Your task to perform on an android device: How much does a 2 bedroom apartment rent for in Los Angeles? Image 0: 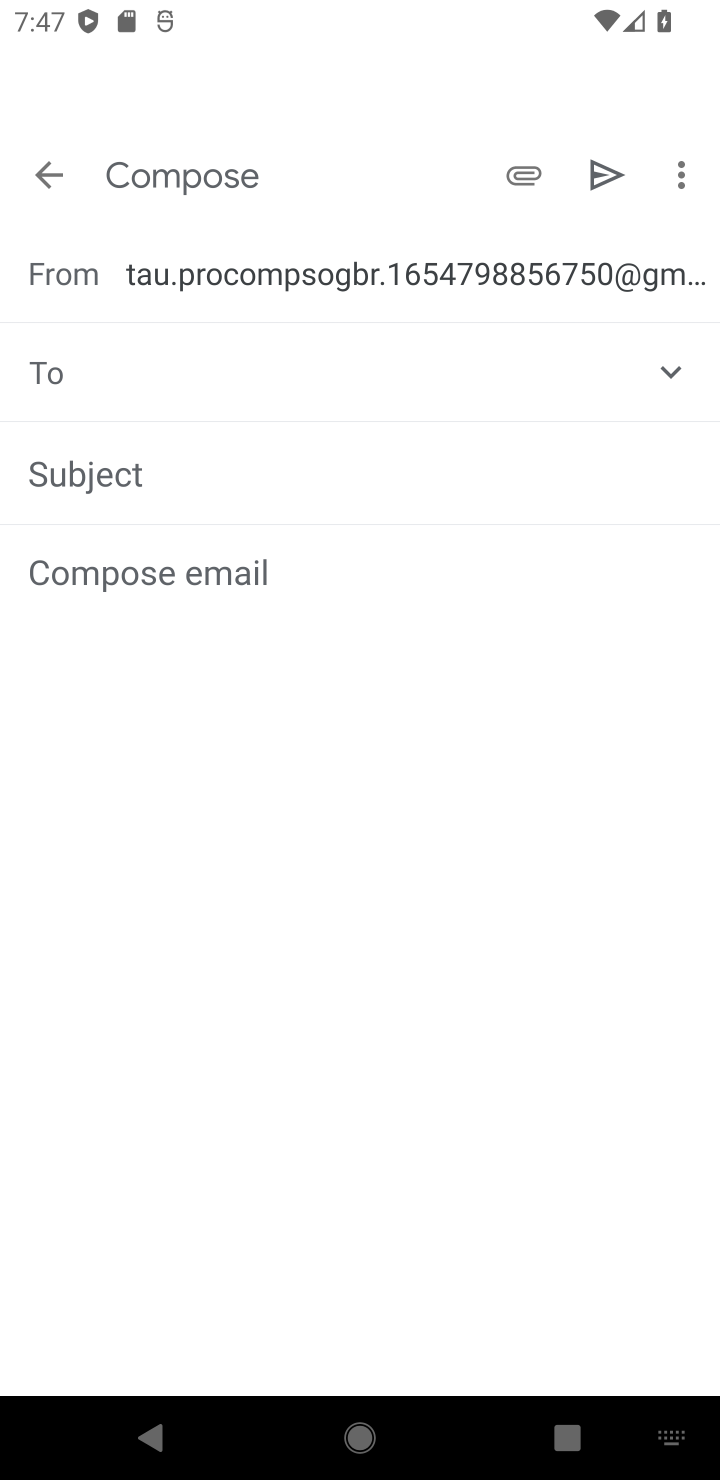
Step 0: press back button
Your task to perform on an android device: How much does a 2 bedroom apartment rent for in Los Angeles? Image 1: 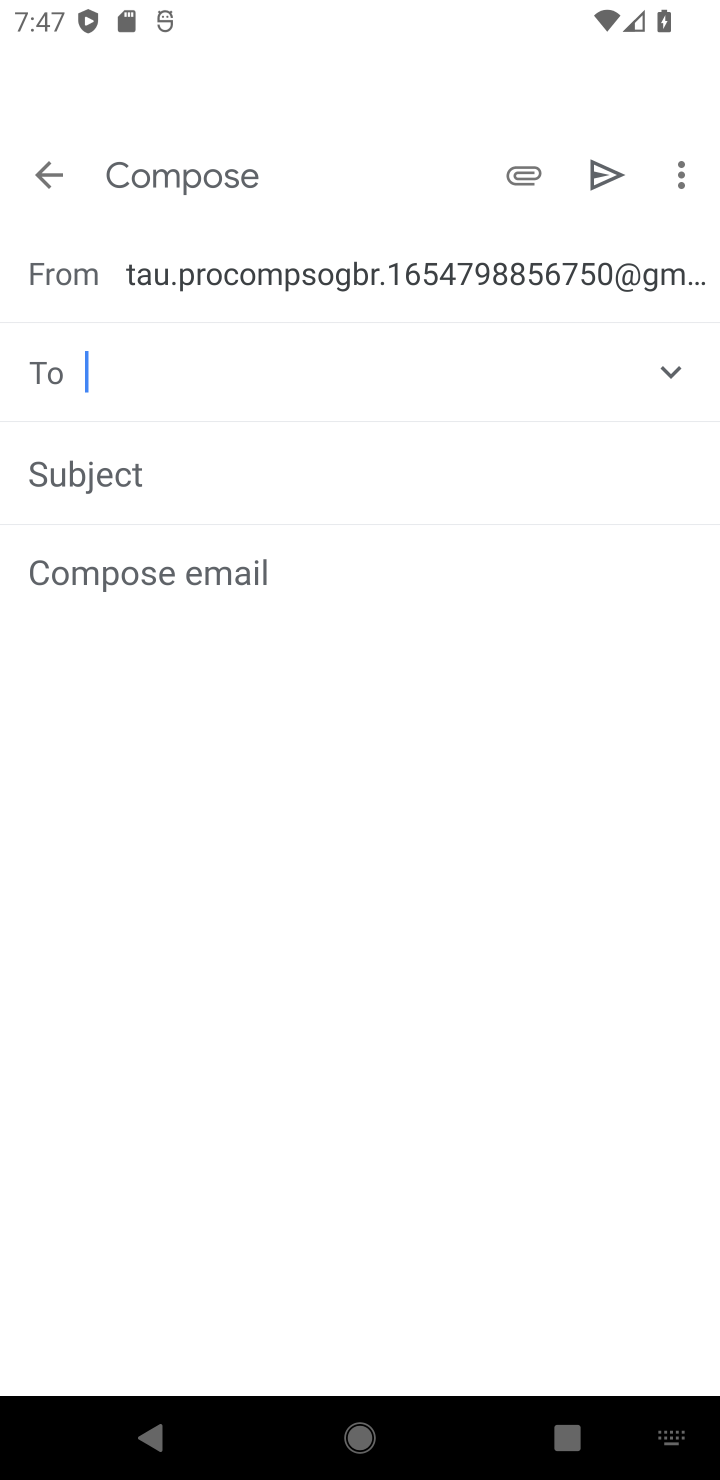
Step 1: press back button
Your task to perform on an android device: How much does a 2 bedroom apartment rent for in Los Angeles? Image 2: 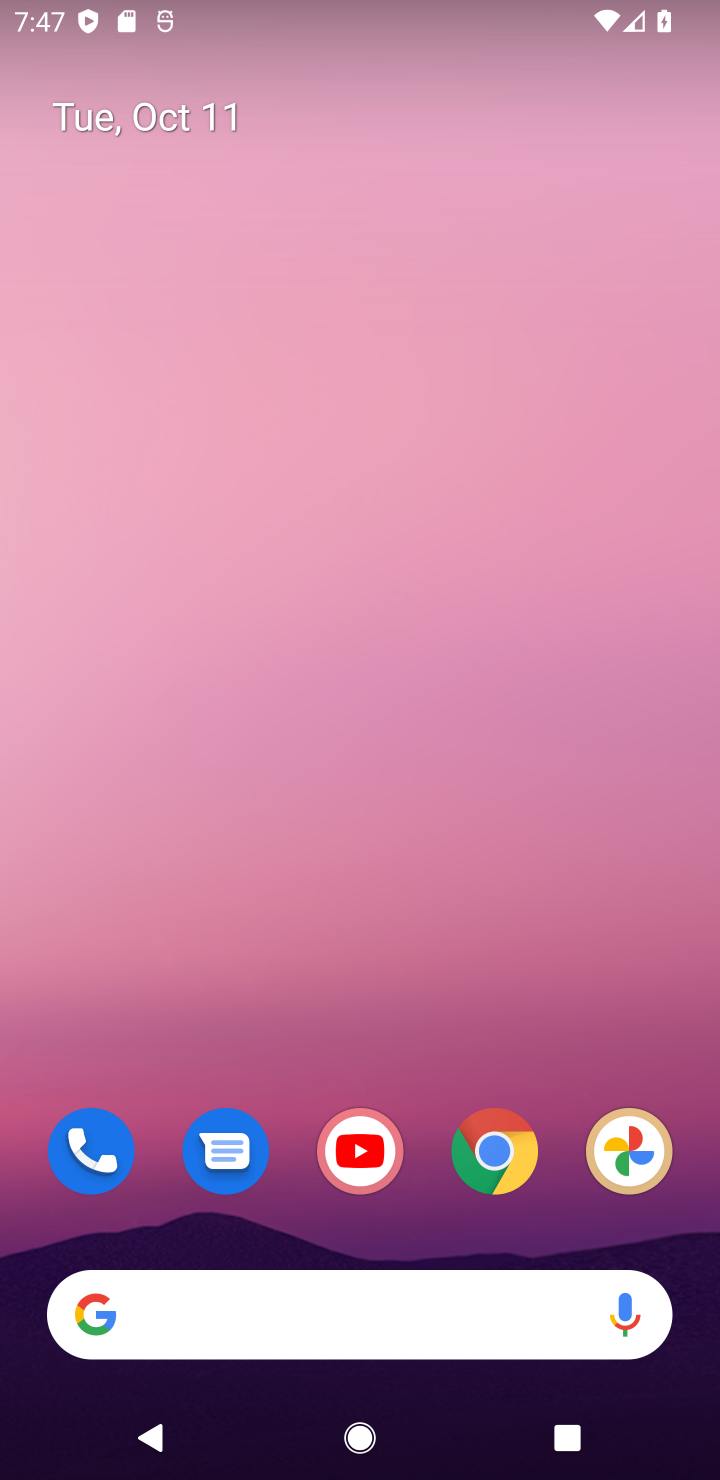
Step 2: press back button
Your task to perform on an android device: How much does a 2 bedroom apartment rent for in Los Angeles? Image 3: 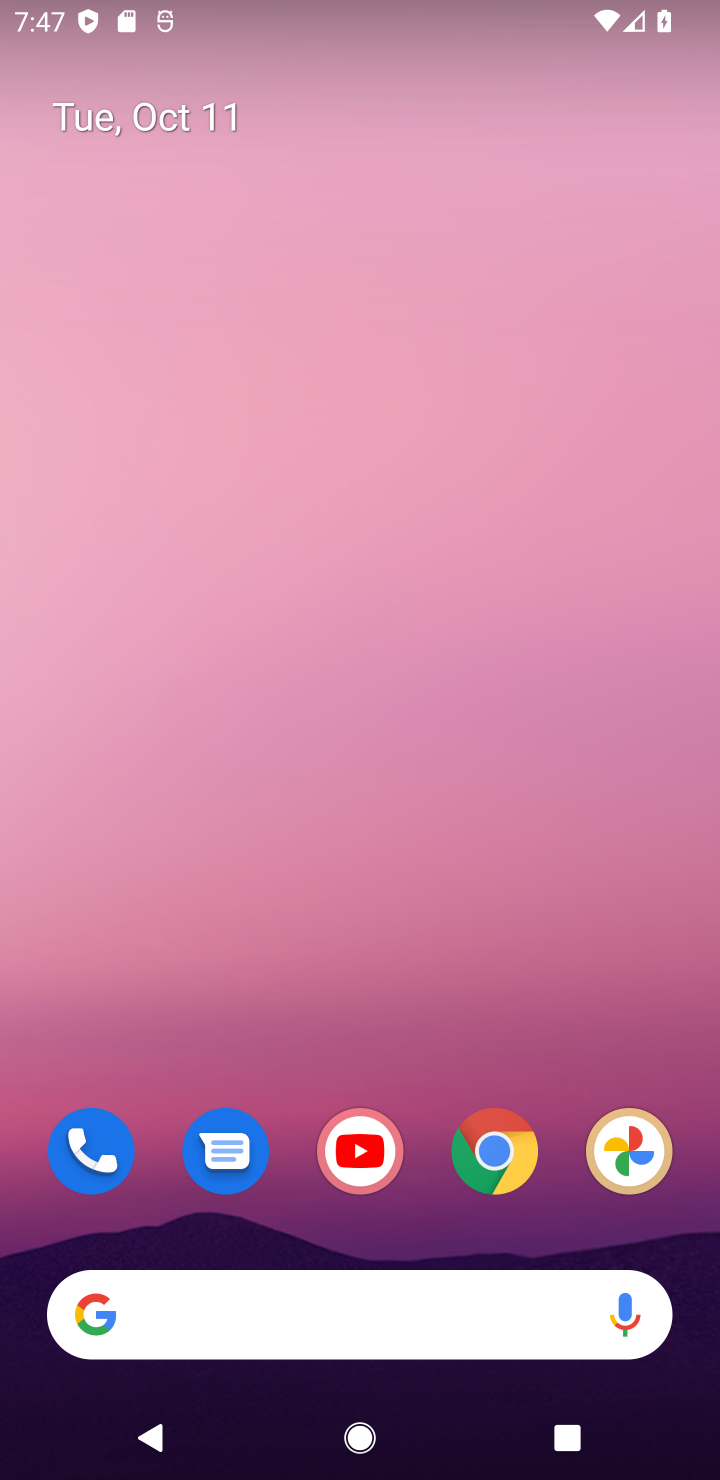
Step 3: press back button
Your task to perform on an android device: How much does a 2 bedroom apartment rent for in Los Angeles? Image 4: 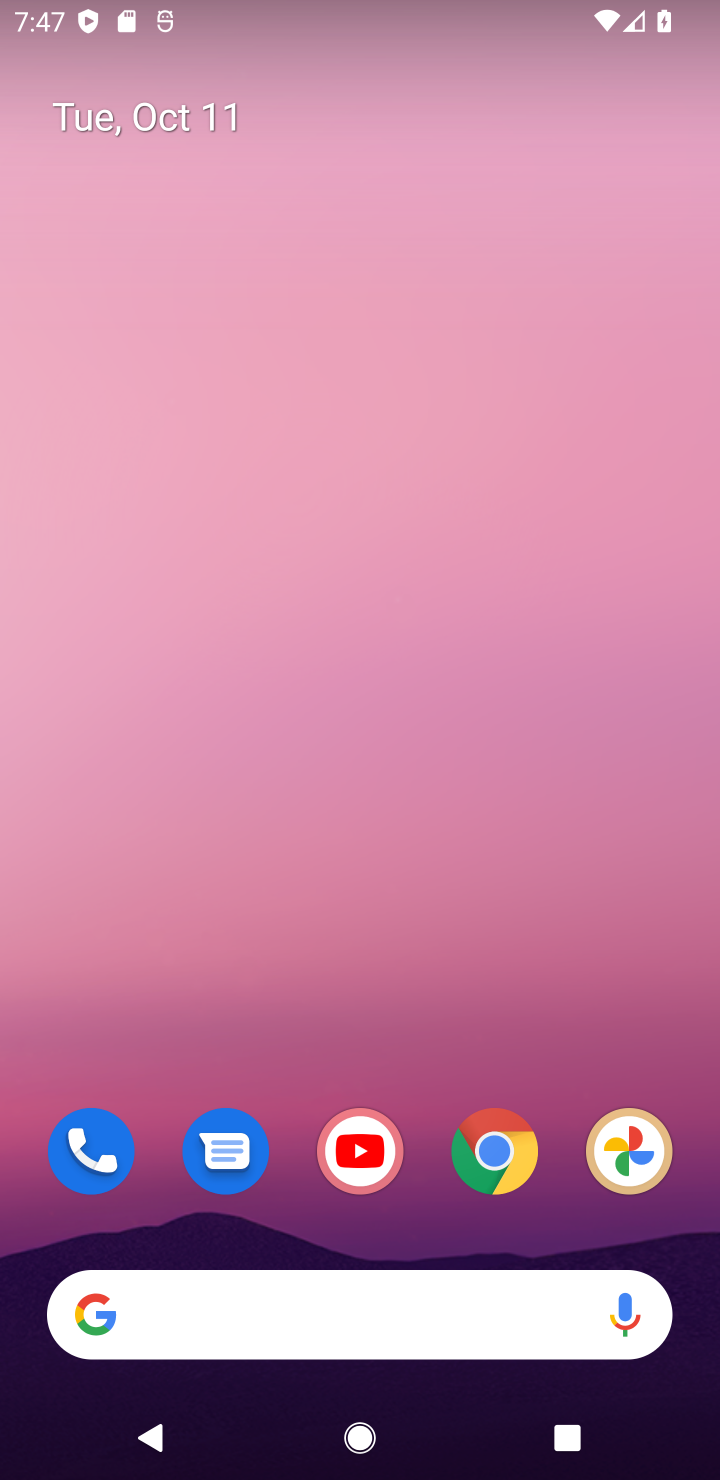
Step 4: press back button
Your task to perform on an android device: How much does a 2 bedroom apartment rent for in Los Angeles? Image 5: 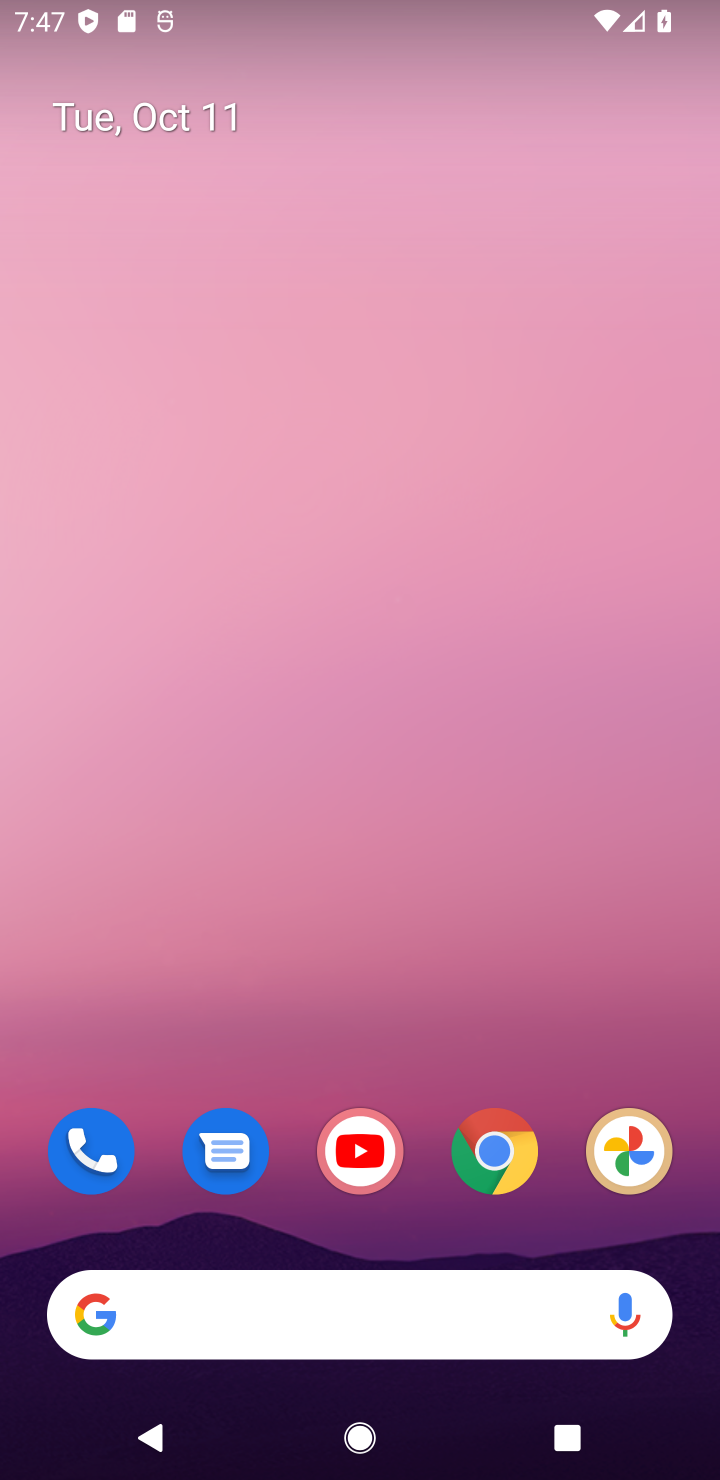
Step 5: press back button
Your task to perform on an android device: How much does a 2 bedroom apartment rent for in Los Angeles? Image 6: 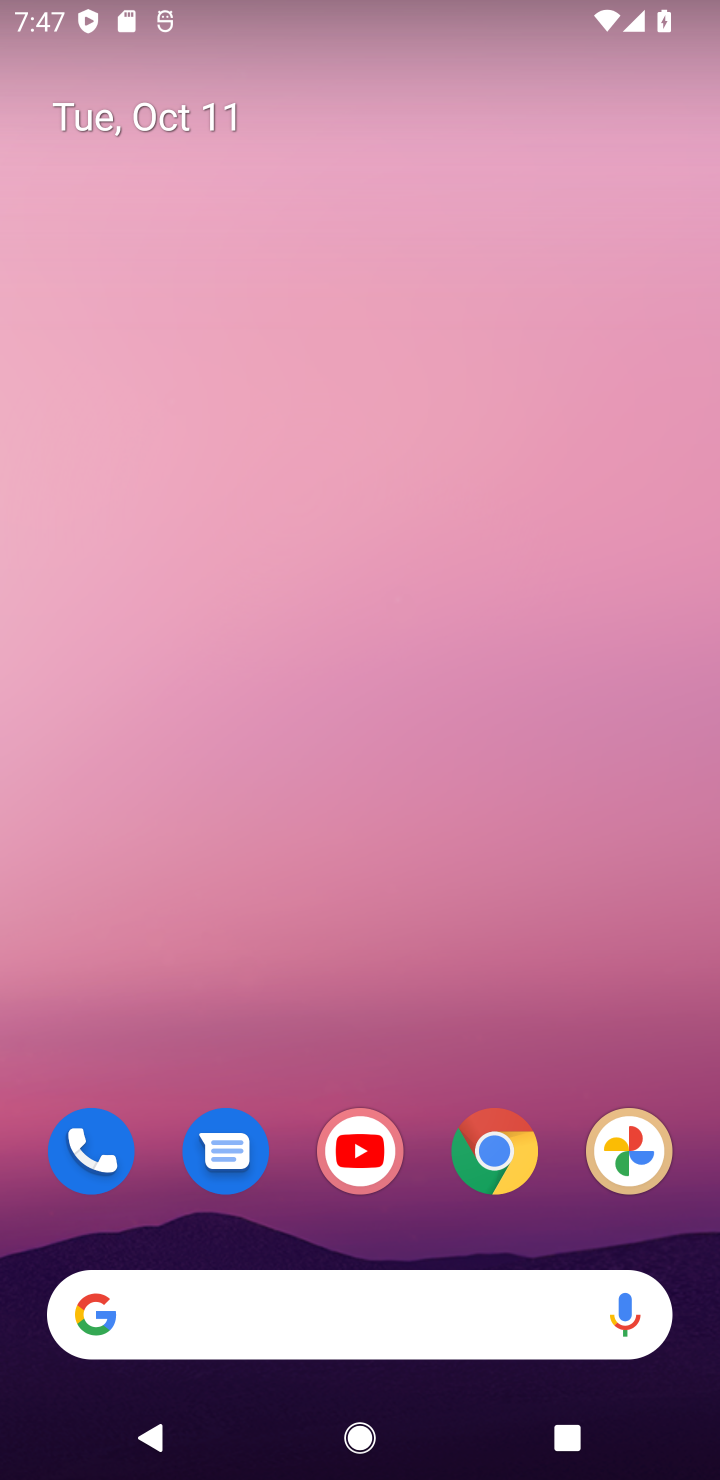
Step 6: press back button
Your task to perform on an android device: How much does a 2 bedroom apartment rent for in Los Angeles? Image 7: 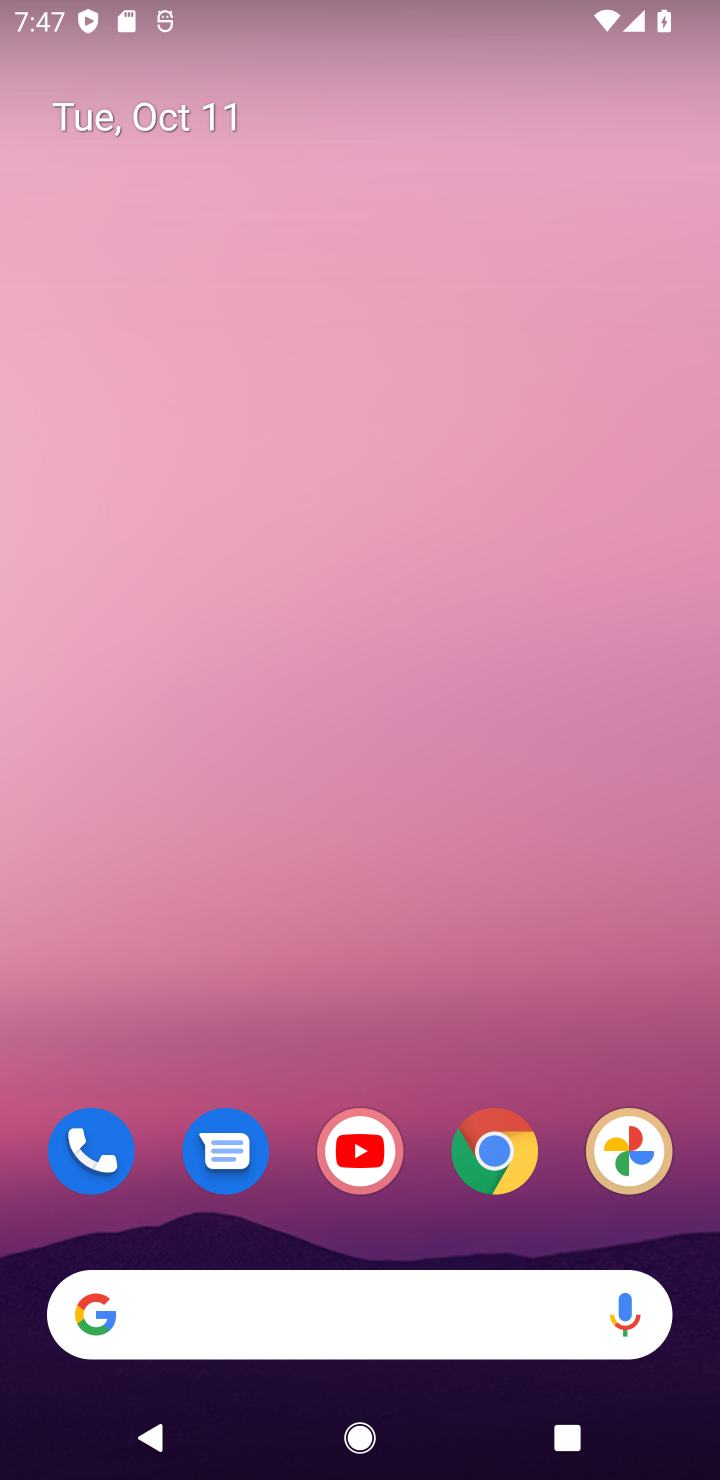
Step 7: click (161, 1302)
Your task to perform on an android device: How much does a 2 bedroom apartment rent for in Los Angeles? Image 8: 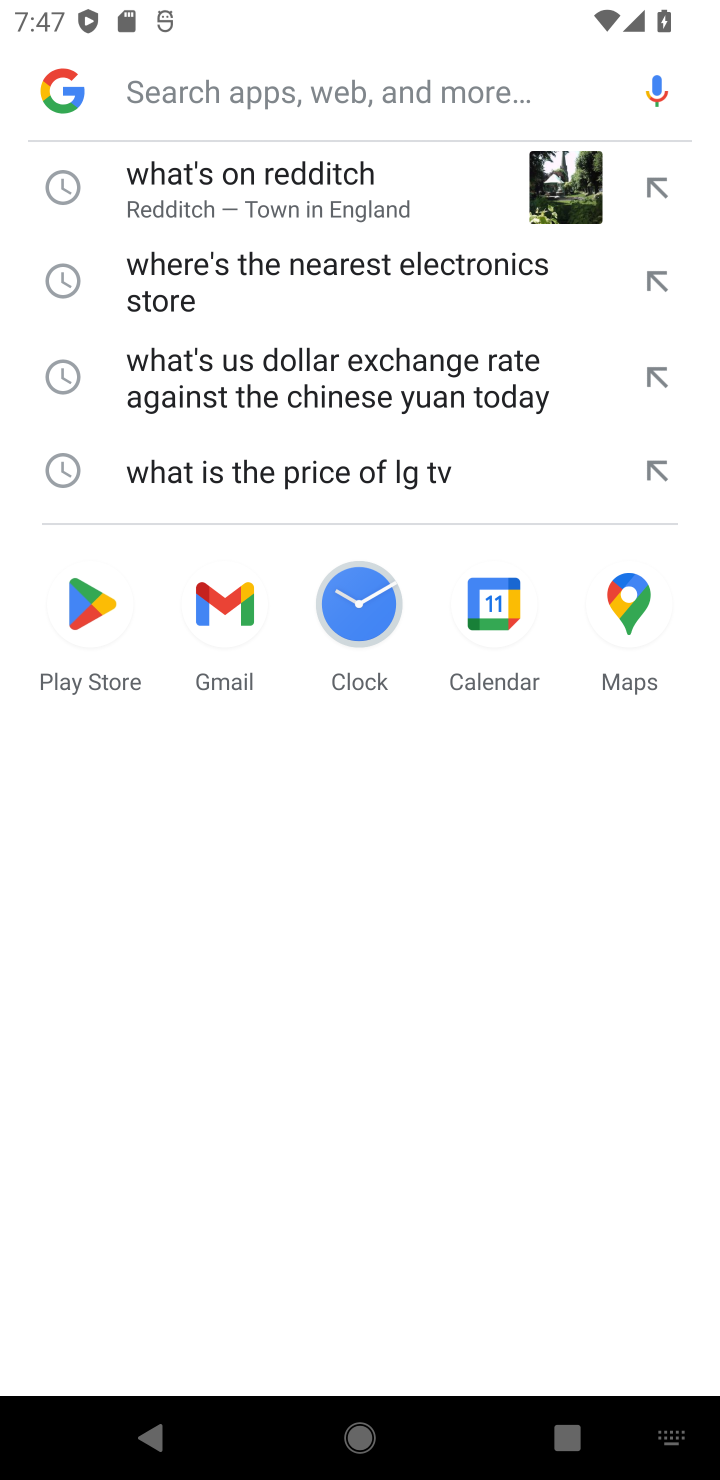
Step 8: type "2 bedroom apartment rent for in Los Angeles"
Your task to perform on an android device: How much does a 2 bedroom apartment rent for in Los Angeles? Image 9: 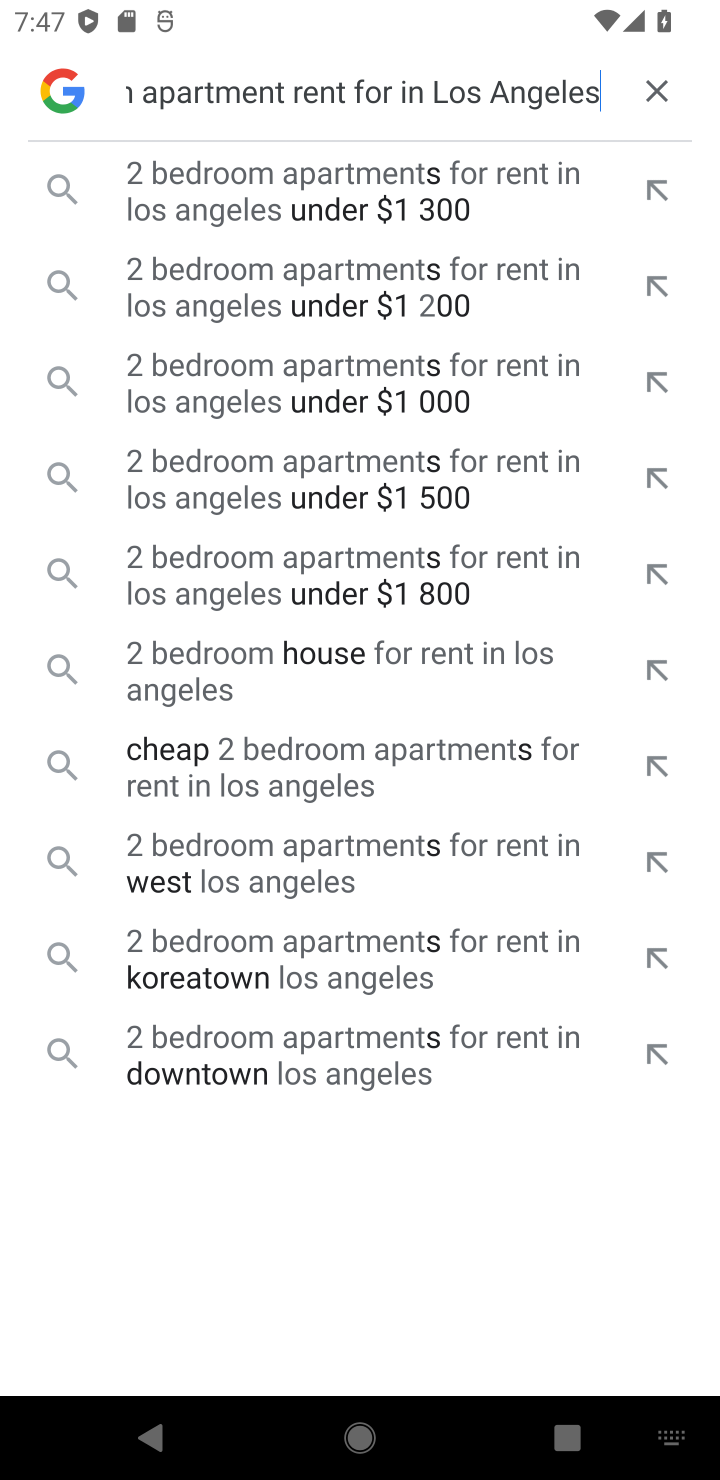
Step 9: click (340, 672)
Your task to perform on an android device: How much does a 2 bedroom apartment rent for in Los Angeles? Image 10: 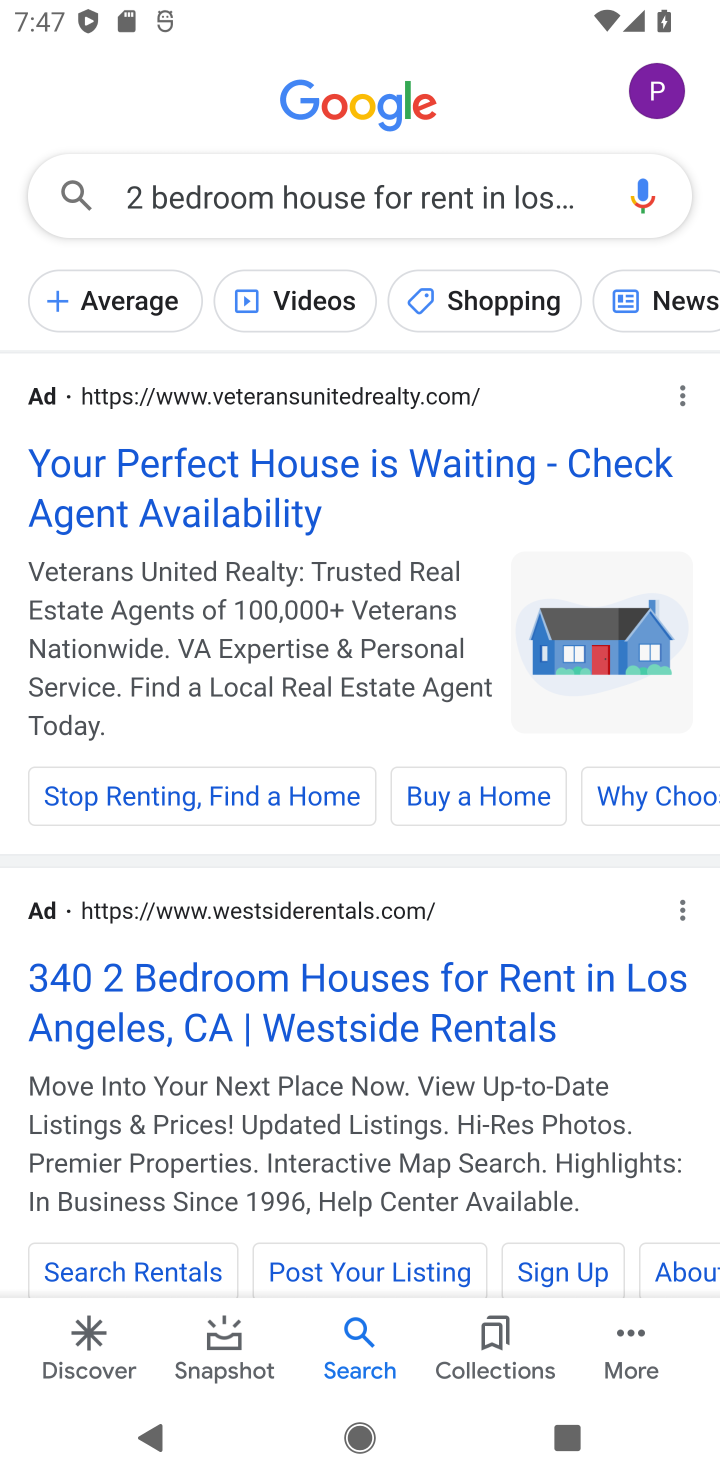
Step 10: drag from (502, 911) to (455, 451)
Your task to perform on an android device: How much does a 2 bedroom apartment rent for in Los Angeles? Image 11: 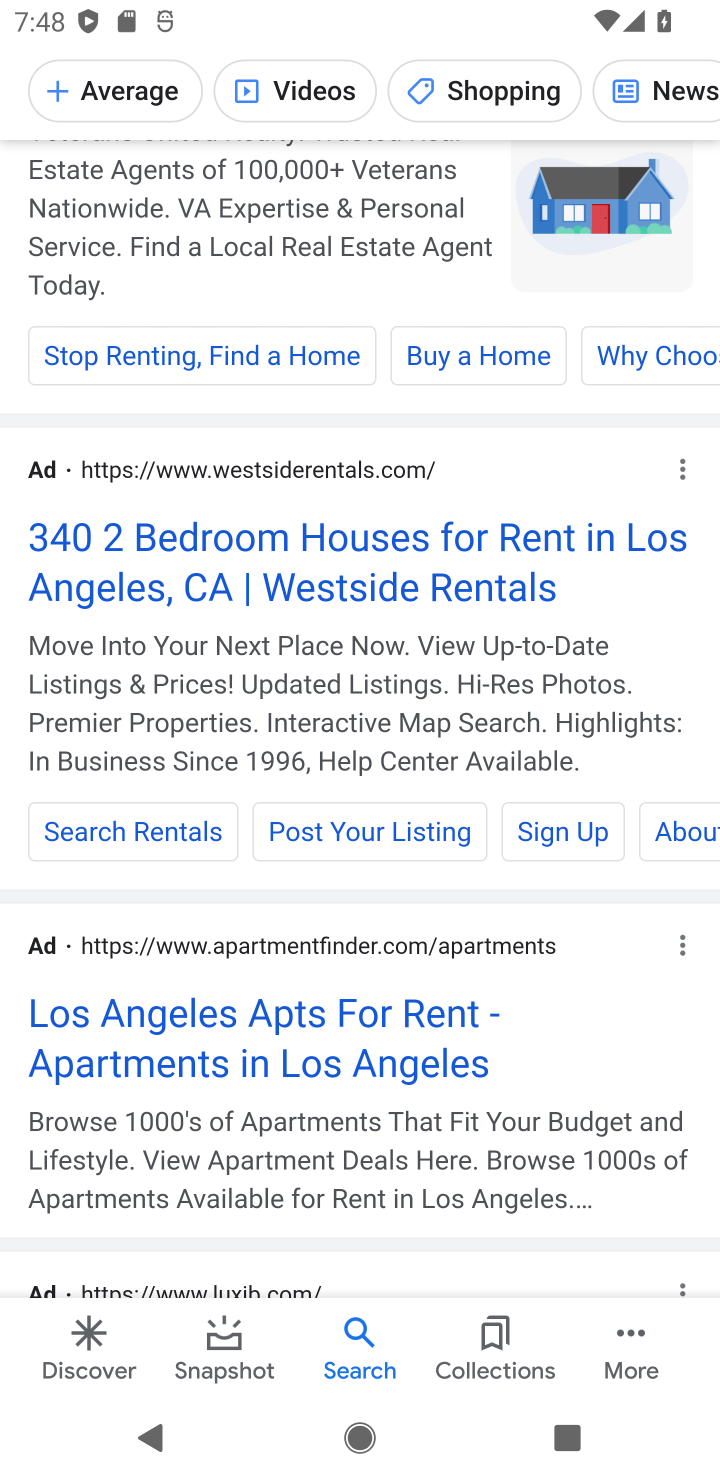
Step 11: drag from (540, 1022) to (489, 493)
Your task to perform on an android device: How much does a 2 bedroom apartment rent for in Los Angeles? Image 12: 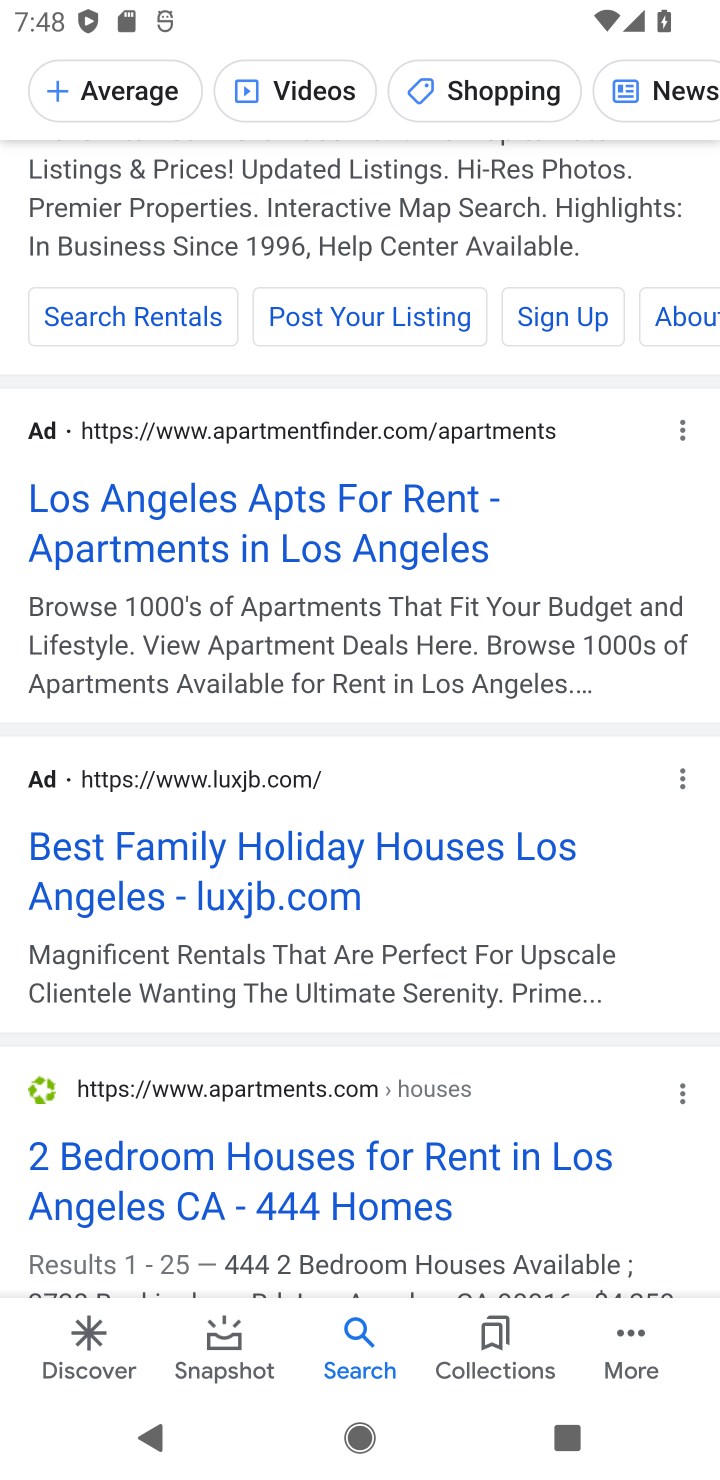
Step 12: click (128, 1164)
Your task to perform on an android device: How much does a 2 bedroom apartment rent for in Los Angeles? Image 13: 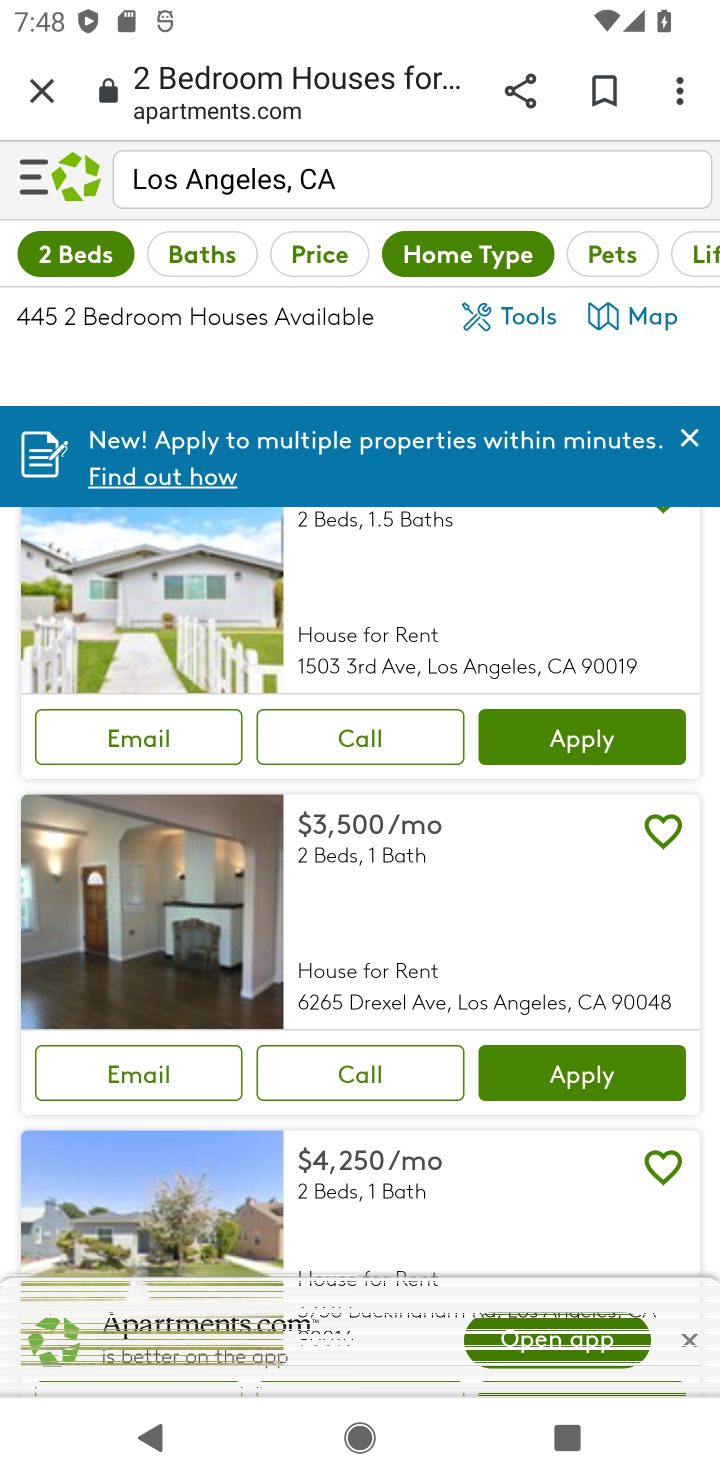
Step 13: drag from (529, 953) to (560, 401)
Your task to perform on an android device: How much does a 2 bedroom apartment rent for in Los Angeles? Image 14: 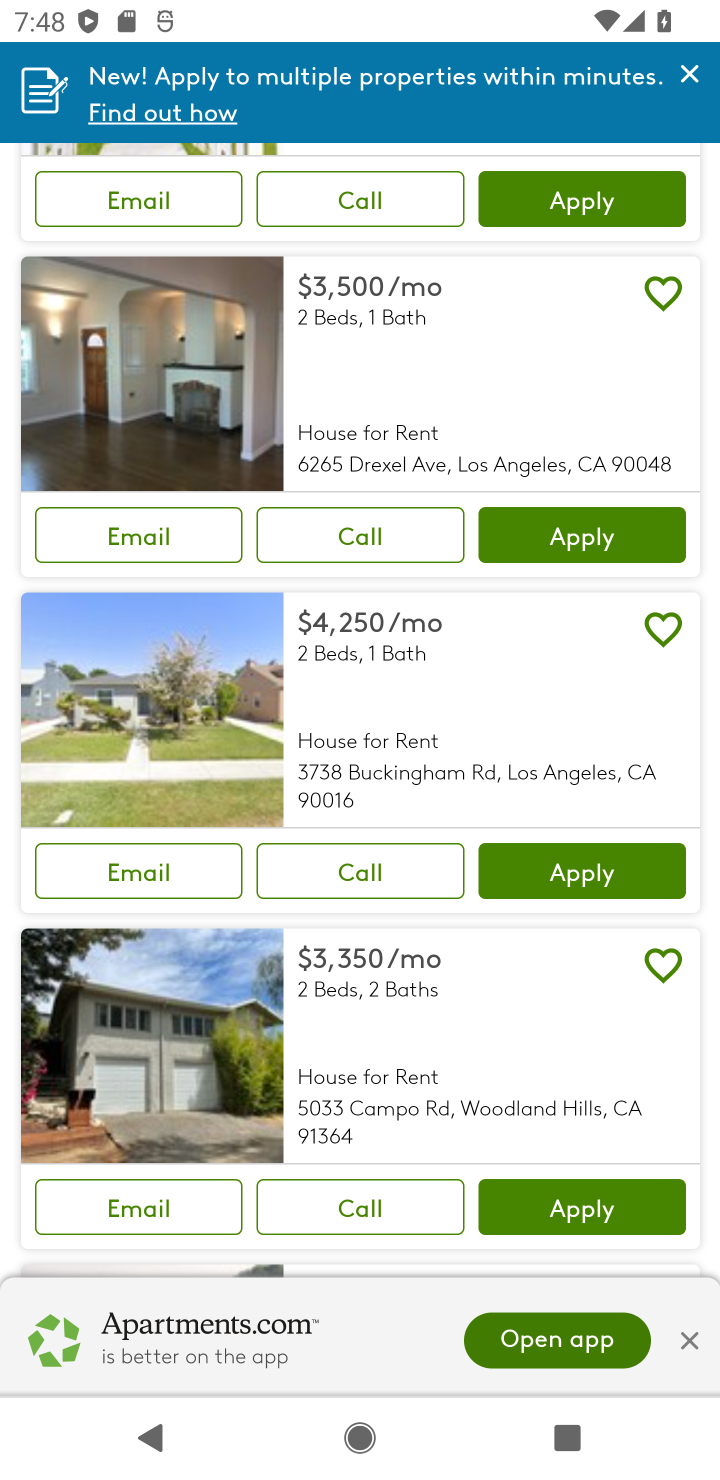
Step 14: drag from (542, 924) to (544, 359)
Your task to perform on an android device: How much does a 2 bedroom apartment rent for in Los Angeles? Image 15: 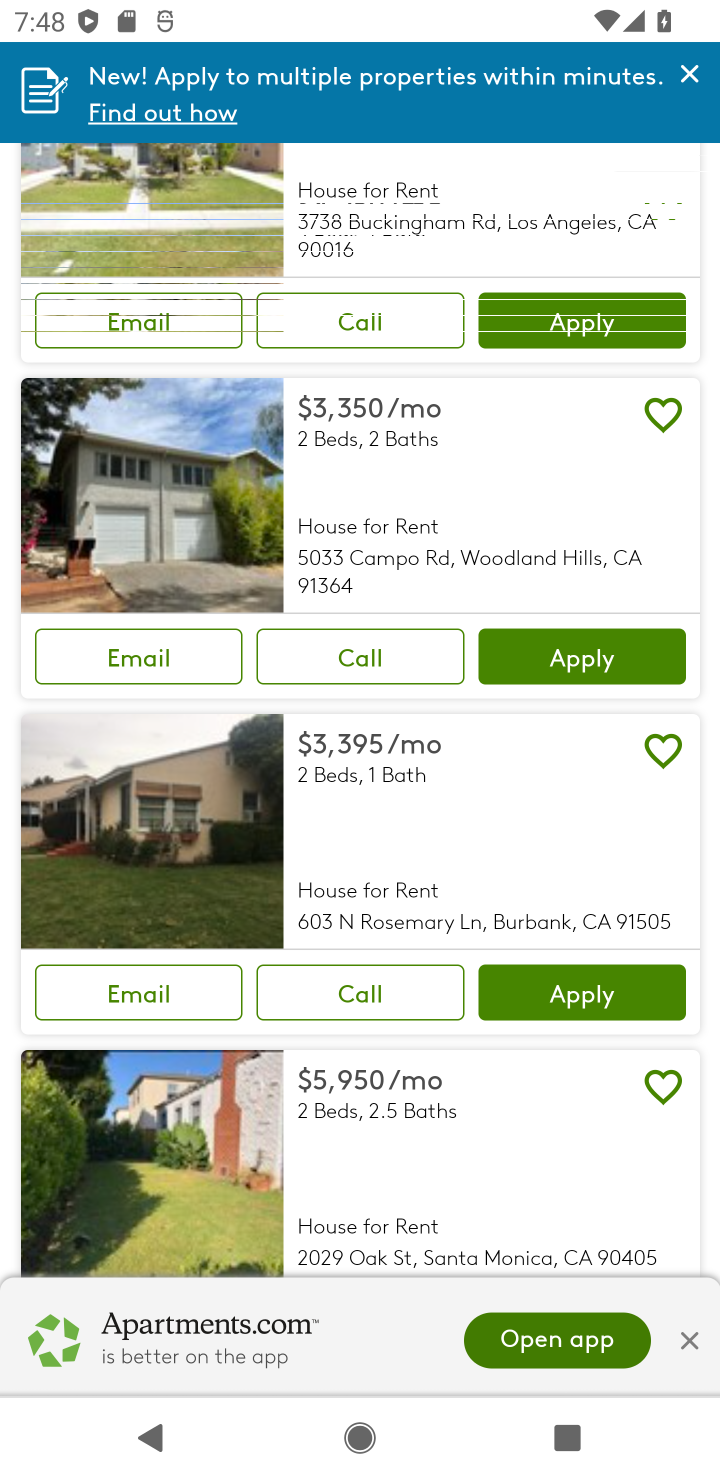
Step 15: drag from (501, 1131) to (529, 528)
Your task to perform on an android device: How much does a 2 bedroom apartment rent for in Los Angeles? Image 16: 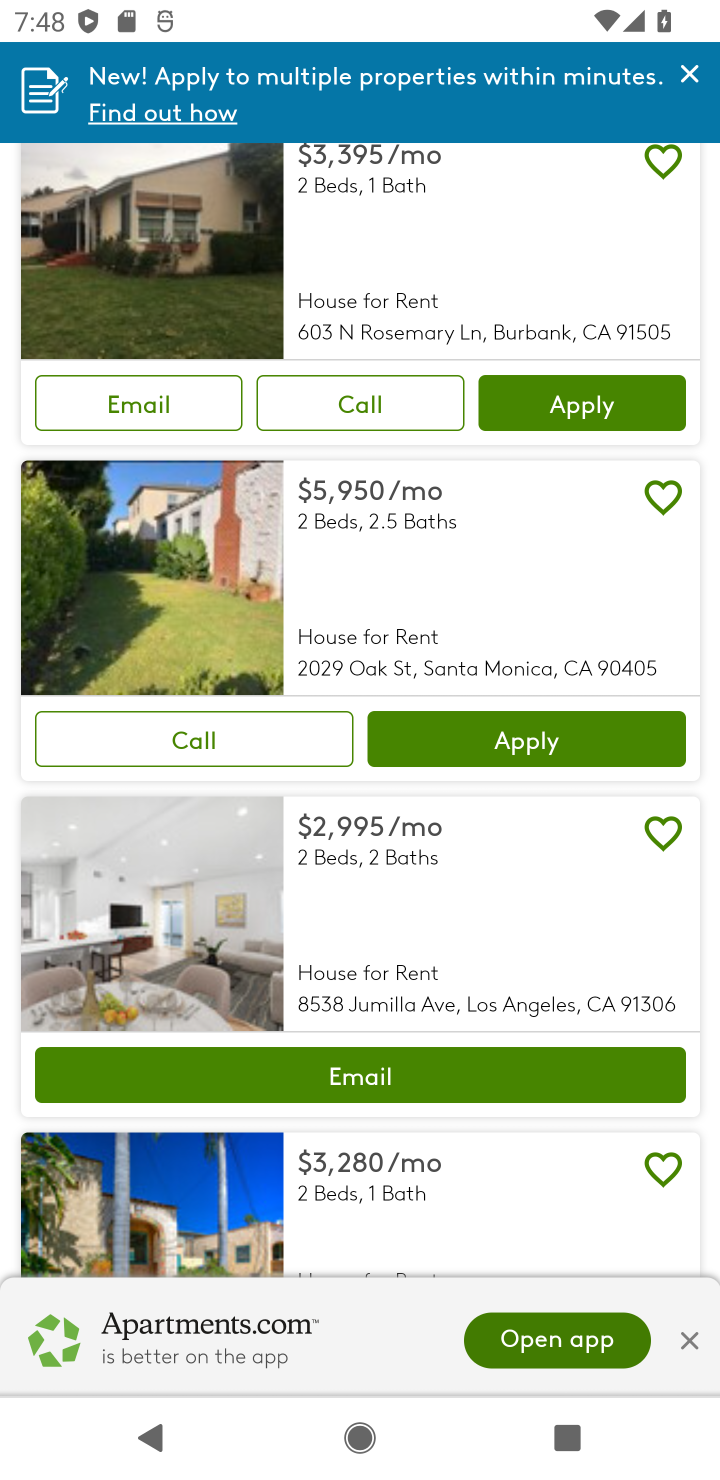
Step 16: drag from (517, 925) to (599, 304)
Your task to perform on an android device: How much does a 2 bedroom apartment rent for in Los Angeles? Image 17: 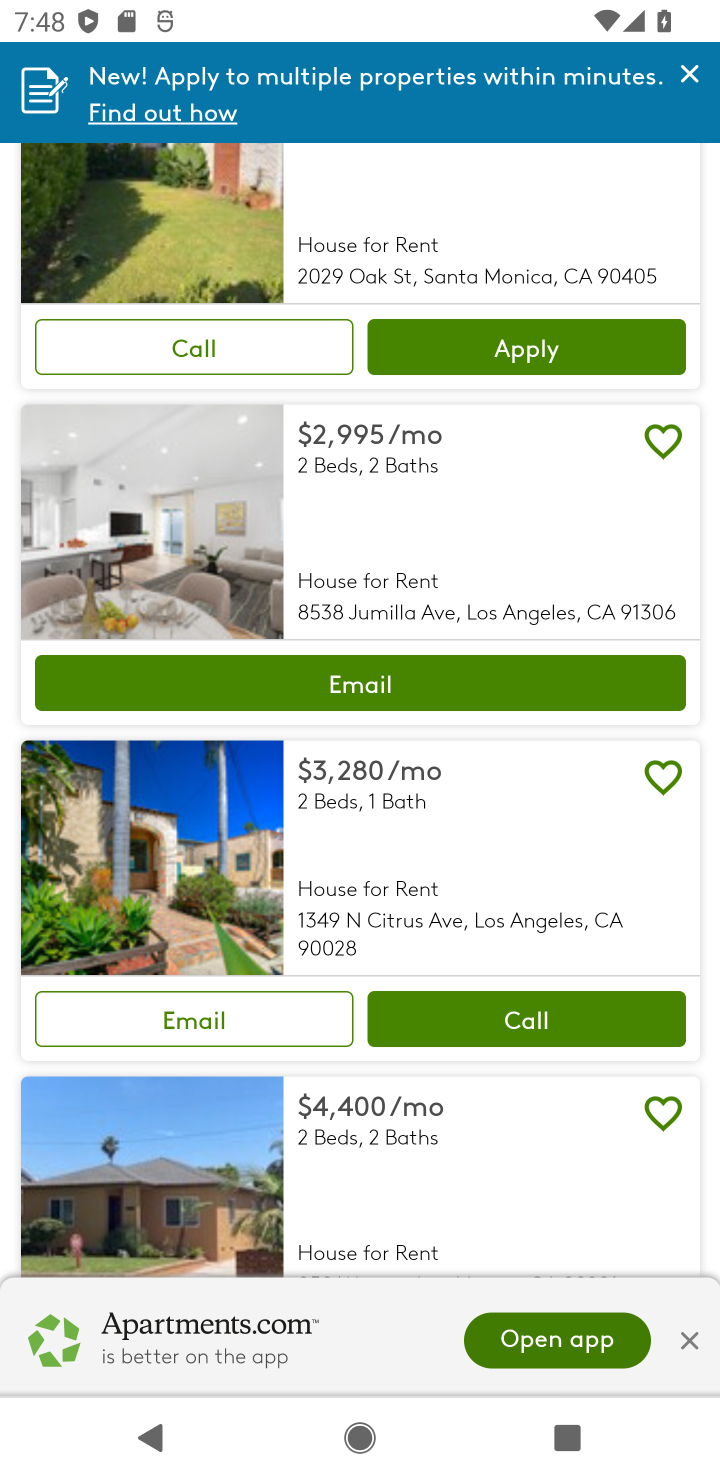
Step 17: drag from (521, 763) to (547, 586)
Your task to perform on an android device: How much does a 2 bedroom apartment rent for in Los Angeles? Image 18: 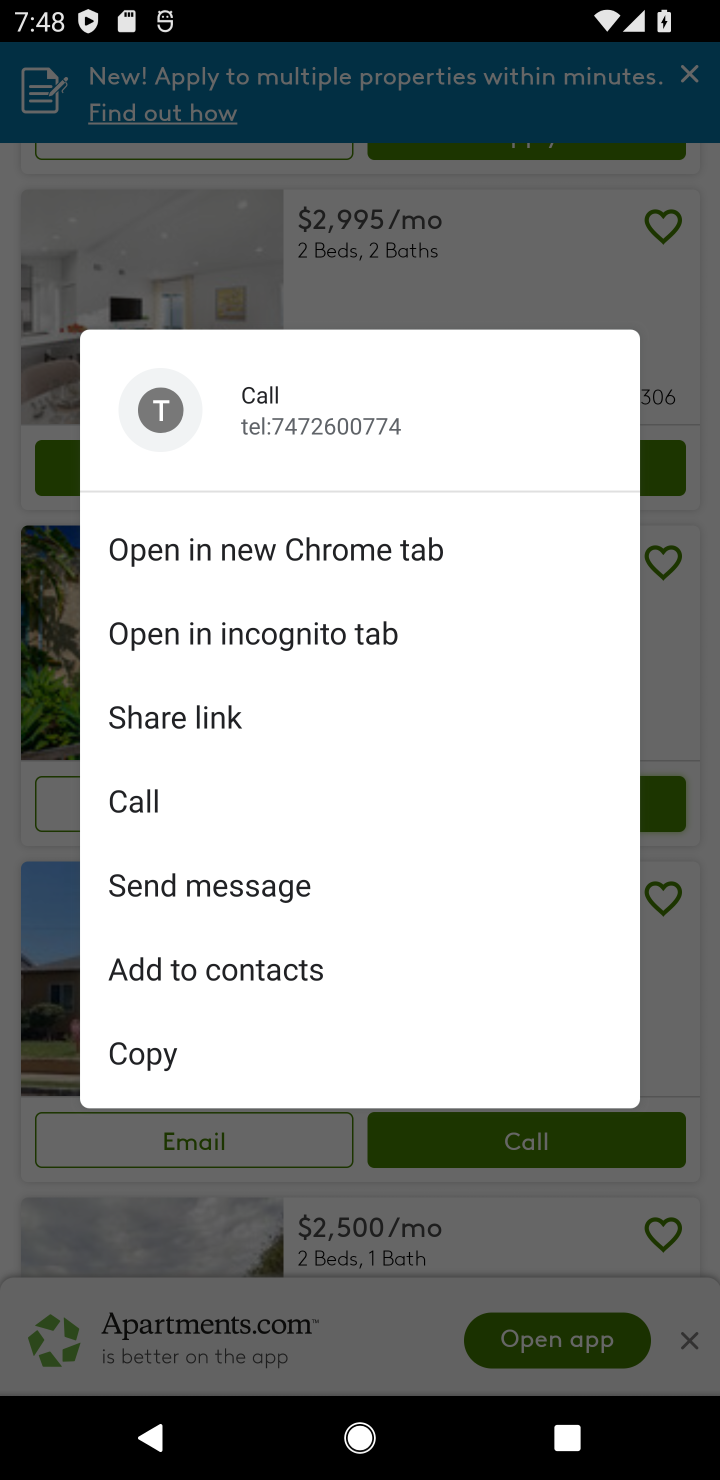
Step 18: click (585, 265)
Your task to perform on an android device: How much does a 2 bedroom apartment rent for in Los Angeles? Image 19: 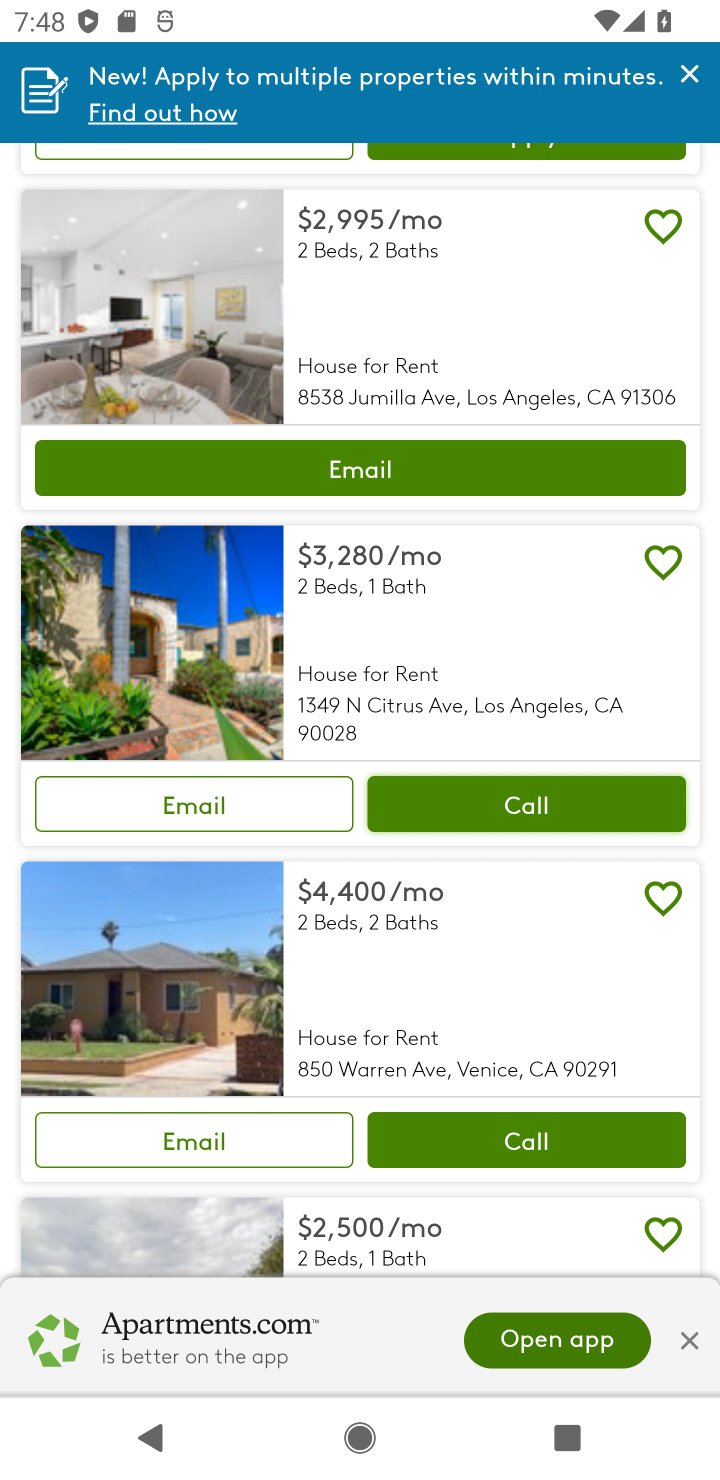
Step 19: task complete